Your task to perform on an android device: Open the phone app and click the voicemail tab. Image 0: 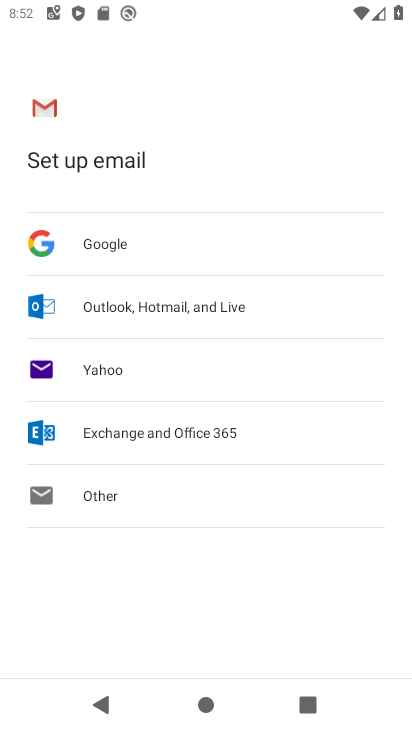
Step 0: press home button
Your task to perform on an android device: Open the phone app and click the voicemail tab. Image 1: 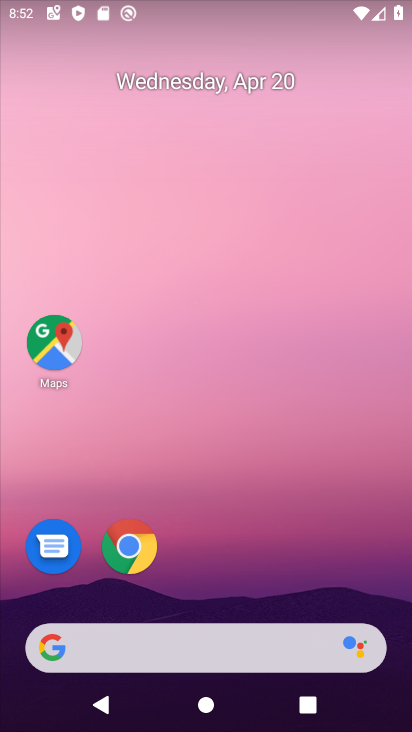
Step 1: drag from (208, 680) to (191, 90)
Your task to perform on an android device: Open the phone app and click the voicemail tab. Image 2: 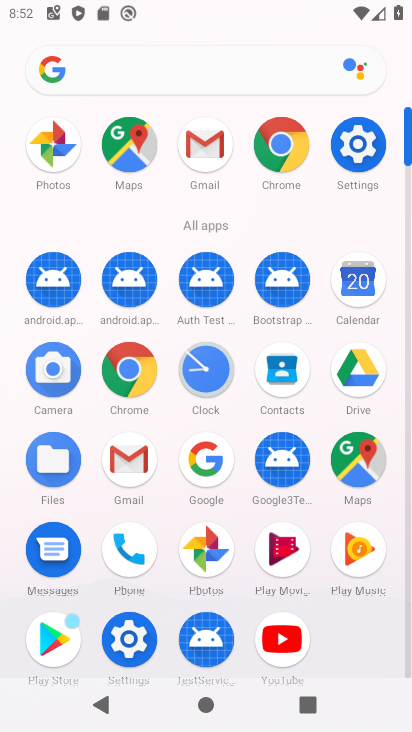
Step 2: click (125, 546)
Your task to perform on an android device: Open the phone app and click the voicemail tab. Image 3: 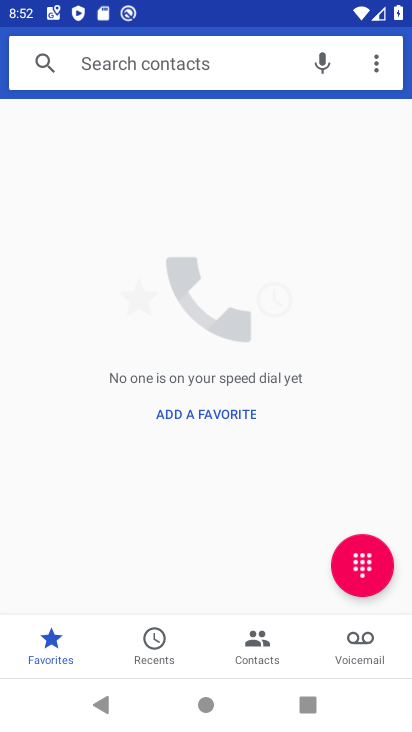
Step 3: click (361, 642)
Your task to perform on an android device: Open the phone app and click the voicemail tab. Image 4: 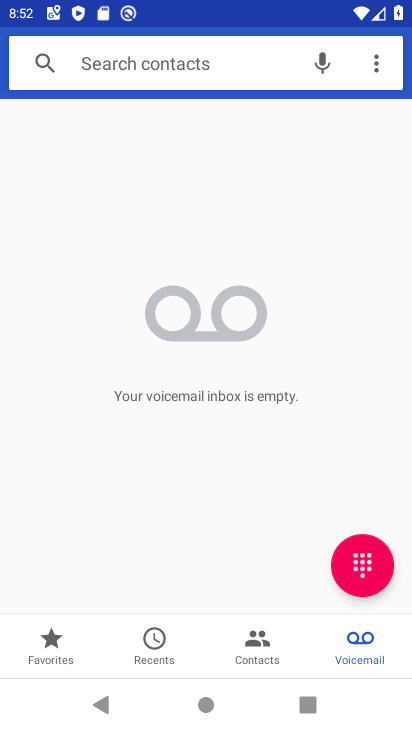
Step 4: task complete